Your task to perform on an android device: Go to battery settings Image 0: 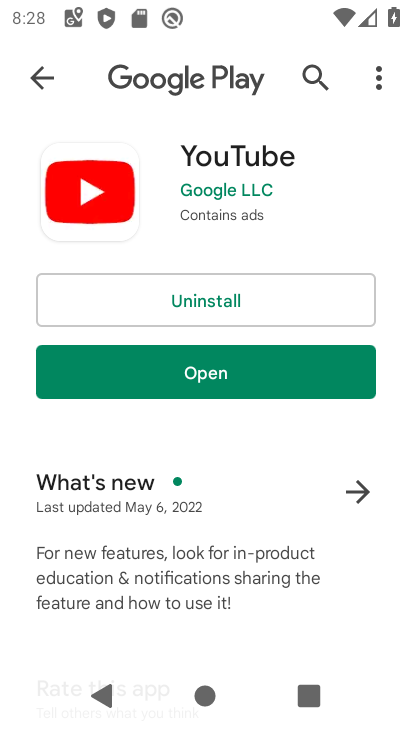
Step 0: press home button
Your task to perform on an android device: Go to battery settings Image 1: 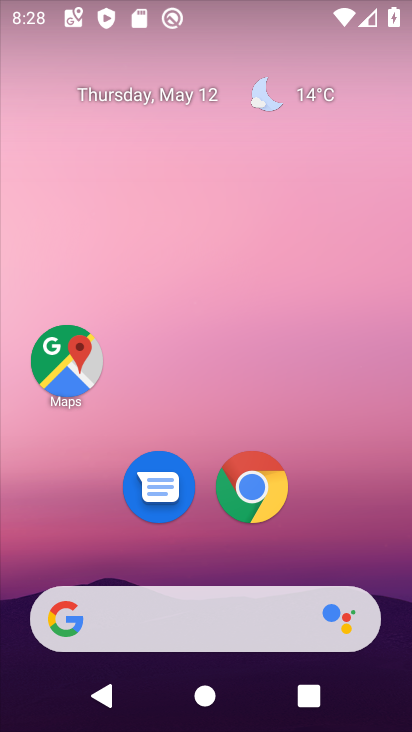
Step 1: drag from (318, 570) to (336, 6)
Your task to perform on an android device: Go to battery settings Image 2: 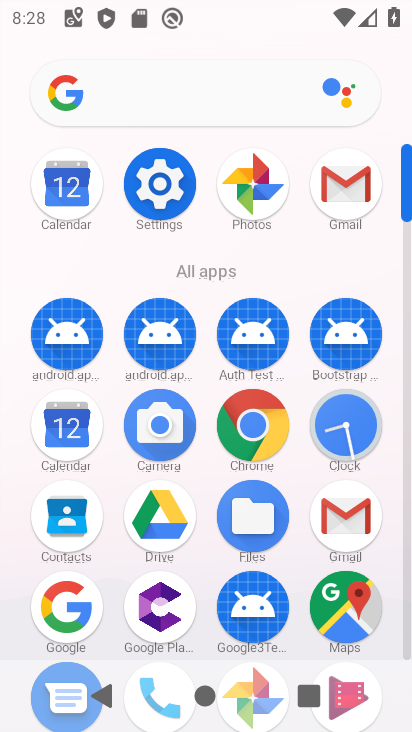
Step 2: click (161, 181)
Your task to perform on an android device: Go to battery settings Image 3: 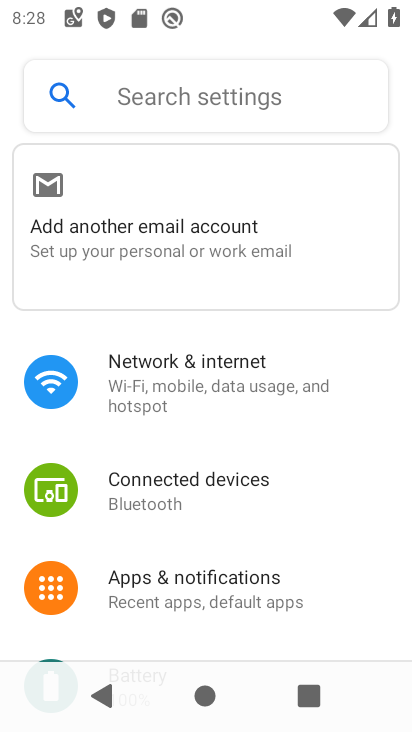
Step 3: drag from (341, 621) to (324, 390)
Your task to perform on an android device: Go to battery settings Image 4: 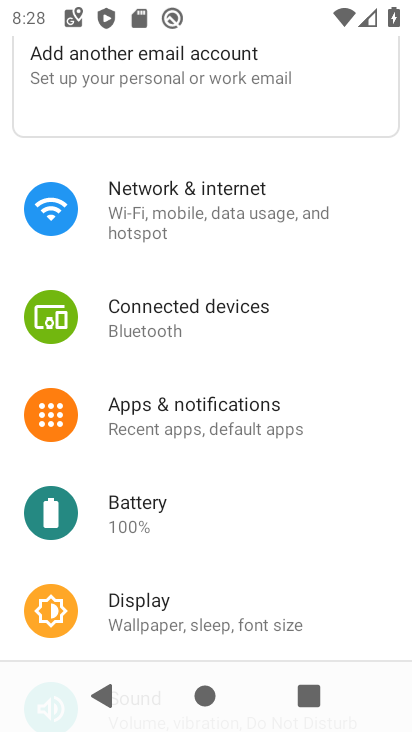
Step 4: click (133, 518)
Your task to perform on an android device: Go to battery settings Image 5: 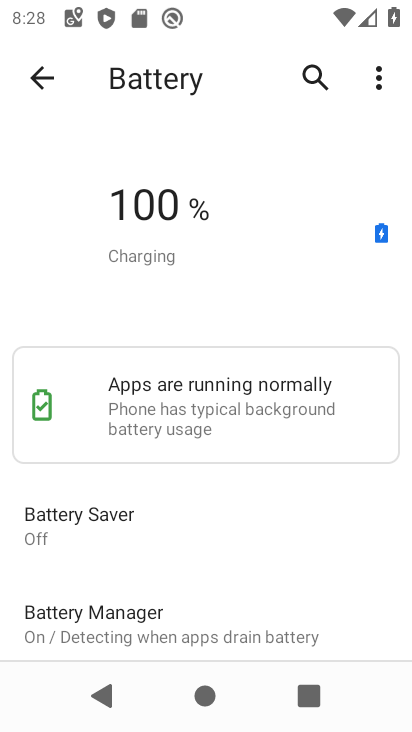
Step 5: task complete